Your task to perform on an android device: toggle translation in the chrome app Image 0: 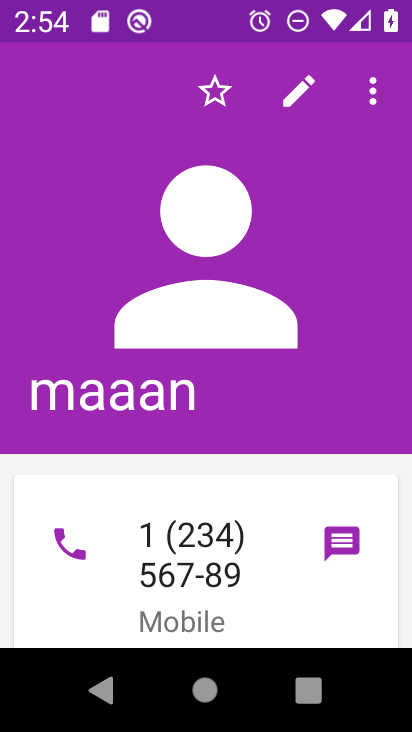
Step 0: press home button
Your task to perform on an android device: toggle translation in the chrome app Image 1: 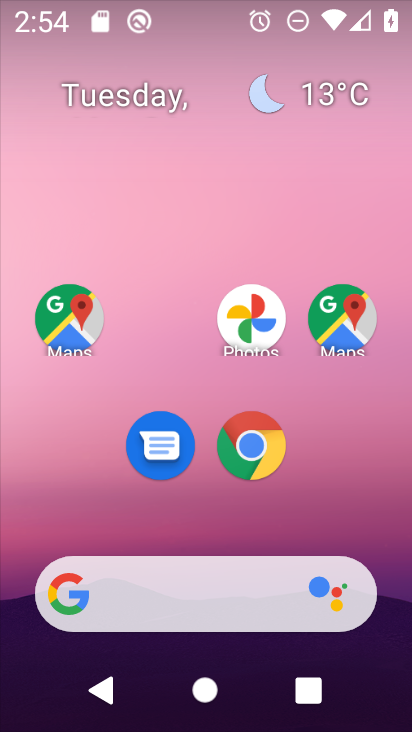
Step 1: drag from (391, 468) to (381, 153)
Your task to perform on an android device: toggle translation in the chrome app Image 2: 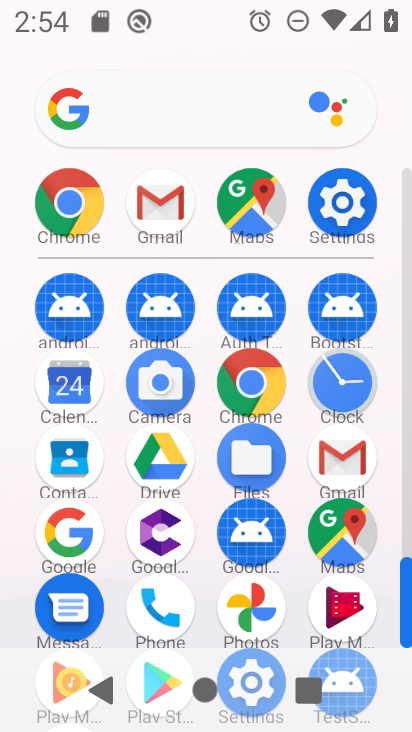
Step 2: click (267, 400)
Your task to perform on an android device: toggle translation in the chrome app Image 3: 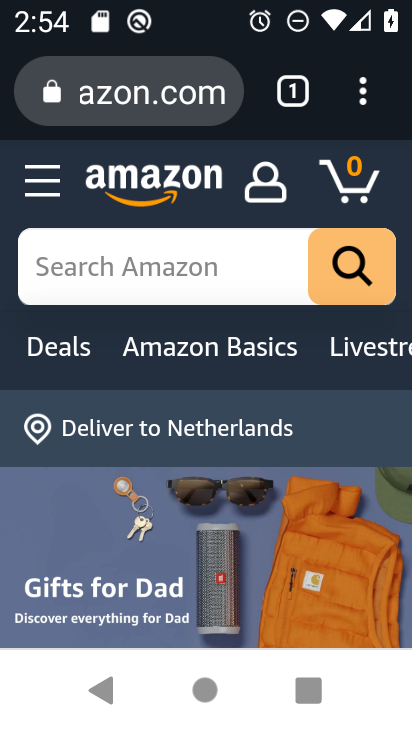
Step 3: click (362, 107)
Your task to perform on an android device: toggle translation in the chrome app Image 4: 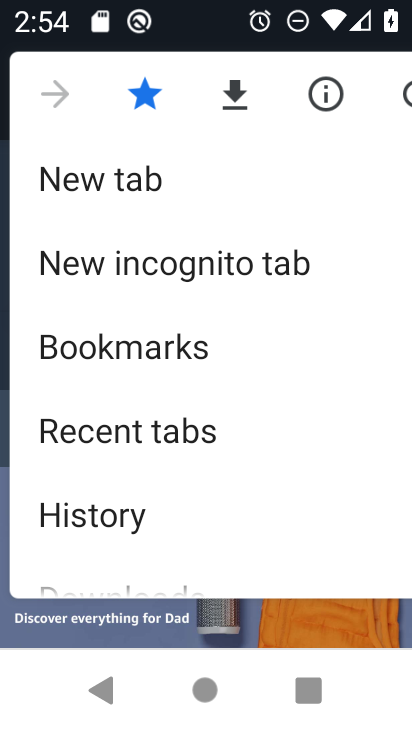
Step 4: drag from (320, 521) to (321, 318)
Your task to perform on an android device: toggle translation in the chrome app Image 5: 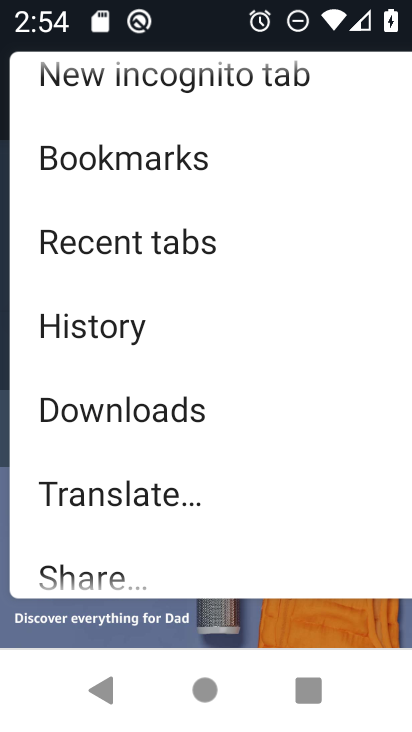
Step 5: drag from (289, 482) to (294, 364)
Your task to perform on an android device: toggle translation in the chrome app Image 6: 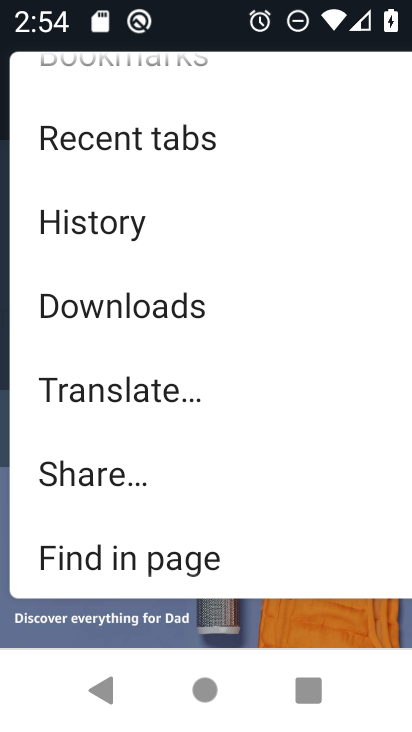
Step 6: drag from (311, 523) to (318, 413)
Your task to perform on an android device: toggle translation in the chrome app Image 7: 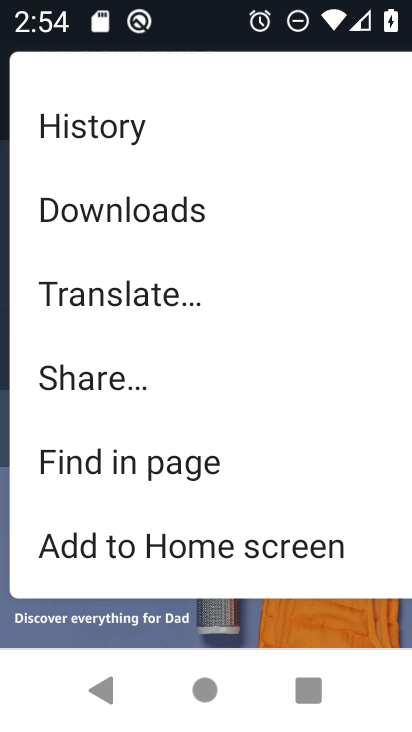
Step 7: drag from (311, 507) to (306, 390)
Your task to perform on an android device: toggle translation in the chrome app Image 8: 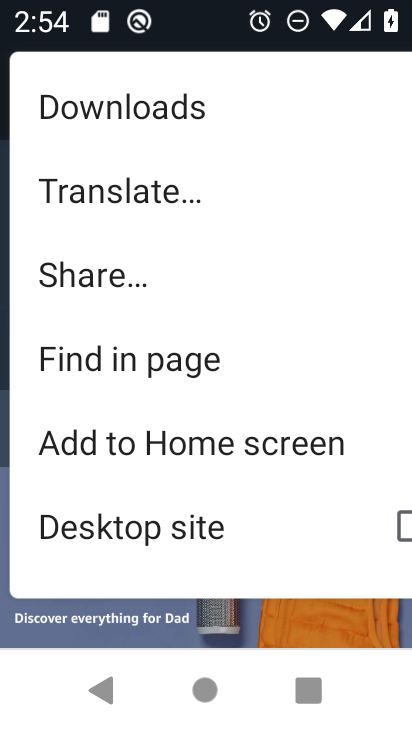
Step 8: drag from (284, 529) to (306, 402)
Your task to perform on an android device: toggle translation in the chrome app Image 9: 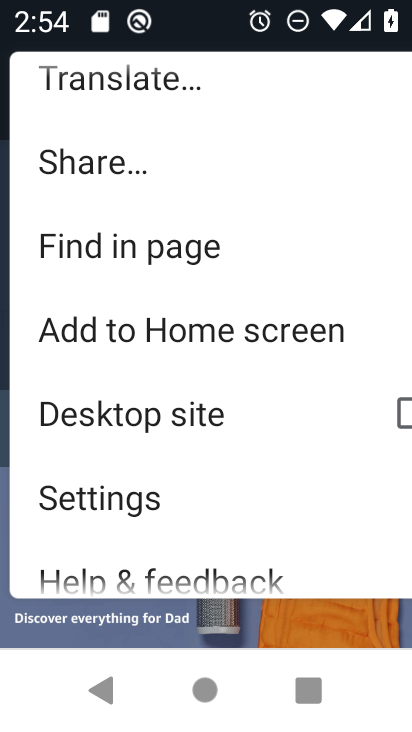
Step 9: drag from (294, 546) to (303, 446)
Your task to perform on an android device: toggle translation in the chrome app Image 10: 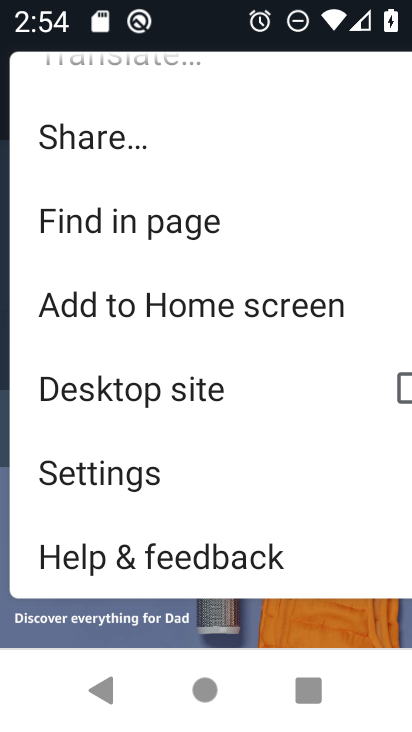
Step 10: click (153, 478)
Your task to perform on an android device: toggle translation in the chrome app Image 11: 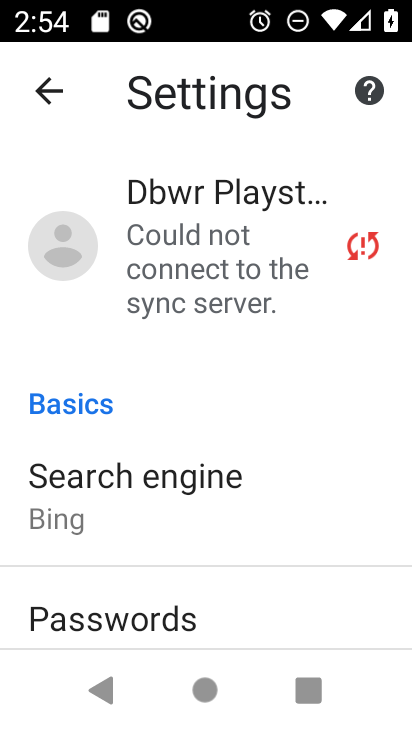
Step 11: drag from (321, 578) to (336, 463)
Your task to perform on an android device: toggle translation in the chrome app Image 12: 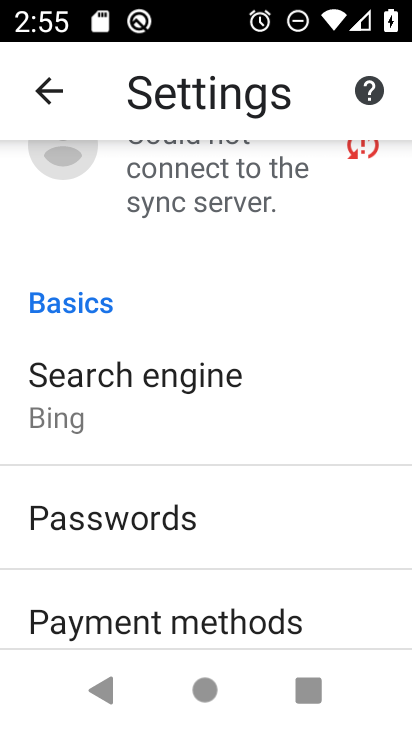
Step 12: drag from (370, 613) to (361, 470)
Your task to perform on an android device: toggle translation in the chrome app Image 13: 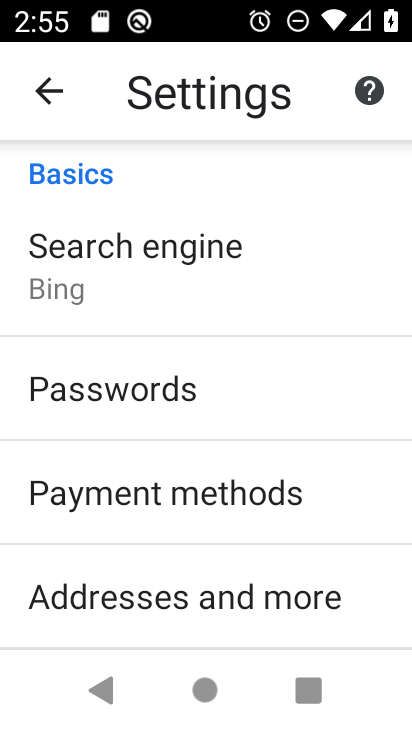
Step 13: drag from (345, 610) to (346, 488)
Your task to perform on an android device: toggle translation in the chrome app Image 14: 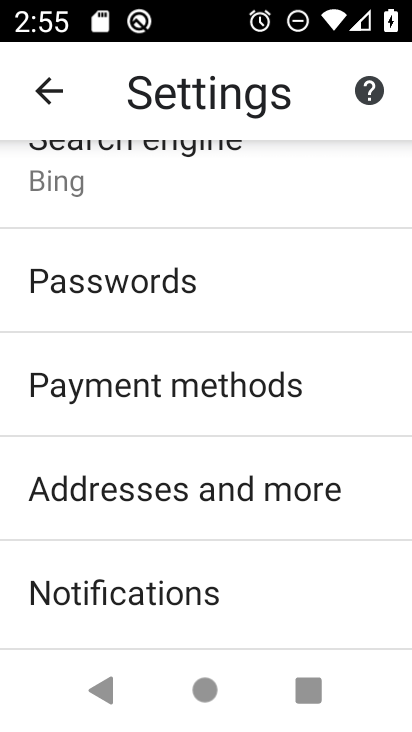
Step 14: drag from (344, 583) to (348, 516)
Your task to perform on an android device: toggle translation in the chrome app Image 15: 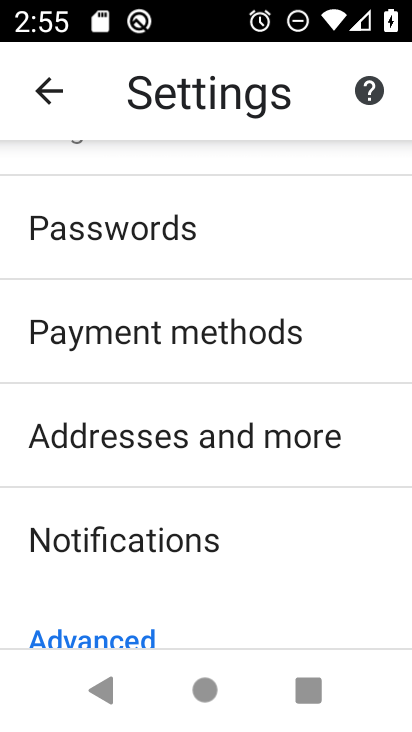
Step 15: drag from (339, 599) to (342, 506)
Your task to perform on an android device: toggle translation in the chrome app Image 16: 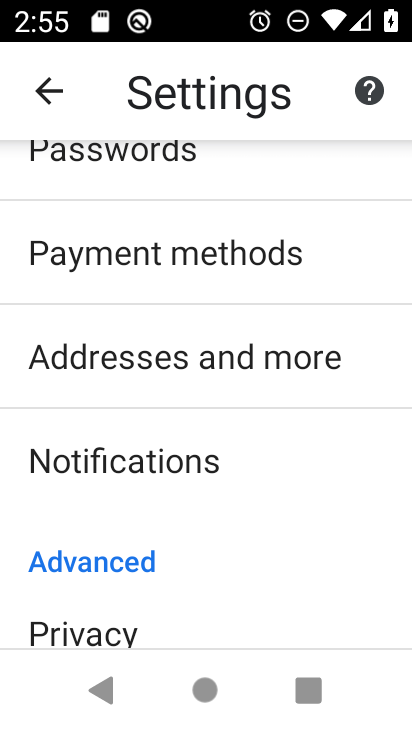
Step 16: drag from (348, 594) to (344, 479)
Your task to perform on an android device: toggle translation in the chrome app Image 17: 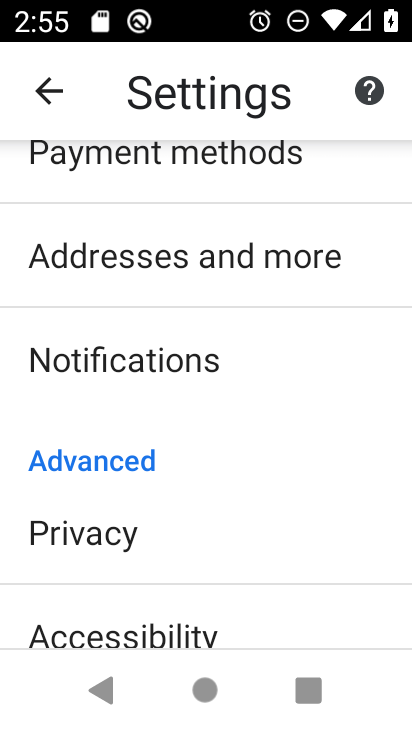
Step 17: drag from (334, 600) to (333, 481)
Your task to perform on an android device: toggle translation in the chrome app Image 18: 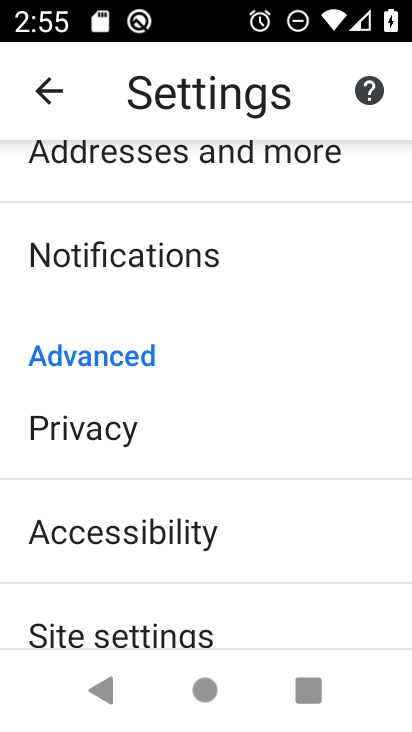
Step 18: drag from (322, 613) to (337, 501)
Your task to perform on an android device: toggle translation in the chrome app Image 19: 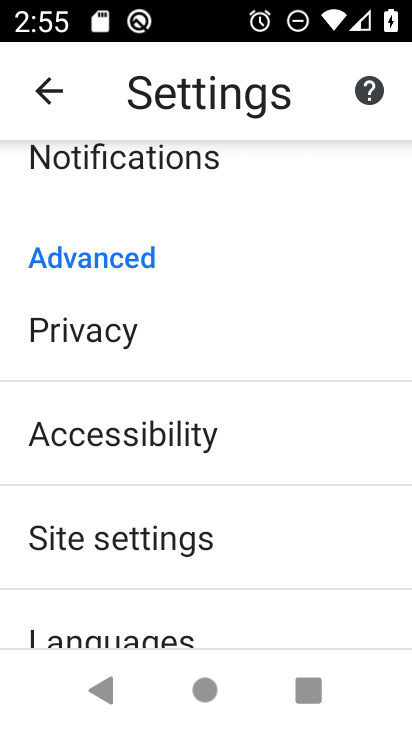
Step 19: drag from (310, 575) to (319, 465)
Your task to perform on an android device: toggle translation in the chrome app Image 20: 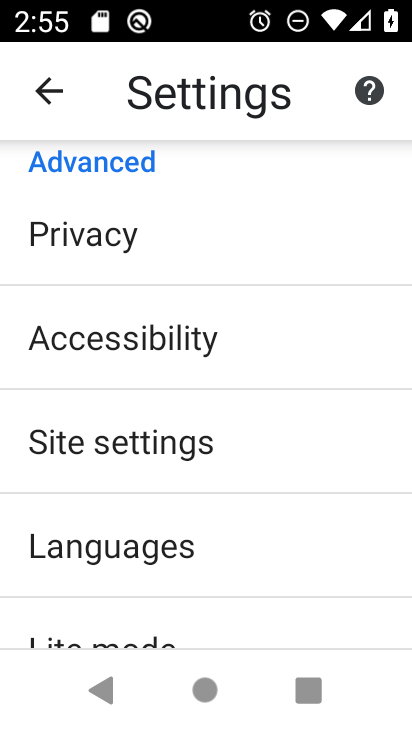
Step 20: click (236, 550)
Your task to perform on an android device: toggle translation in the chrome app Image 21: 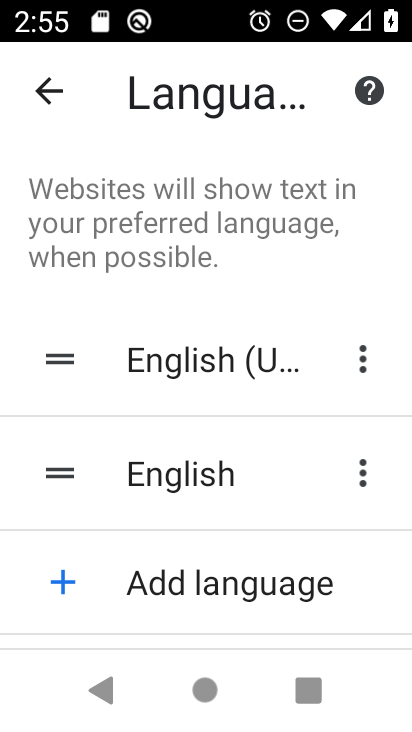
Step 21: drag from (275, 556) to (292, 468)
Your task to perform on an android device: toggle translation in the chrome app Image 22: 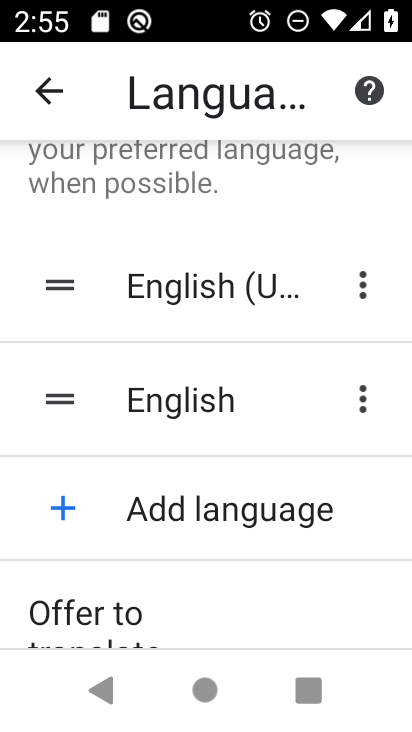
Step 22: drag from (306, 587) to (320, 460)
Your task to perform on an android device: toggle translation in the chrome app Image 23: 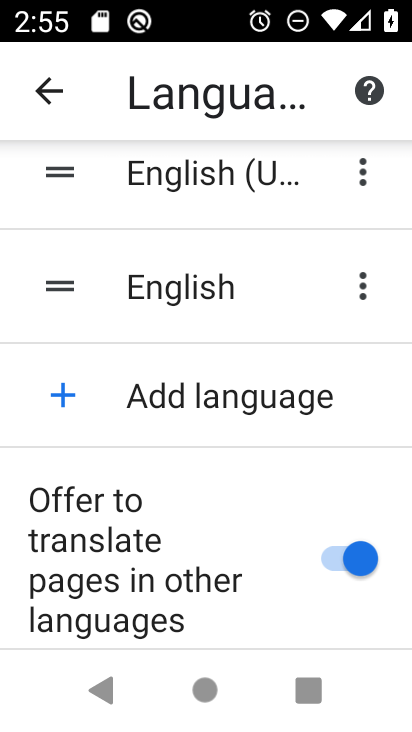
Step 23: click (352, 560)
Your task to perform on an android device: toggle translation in the chrome app Image 24: 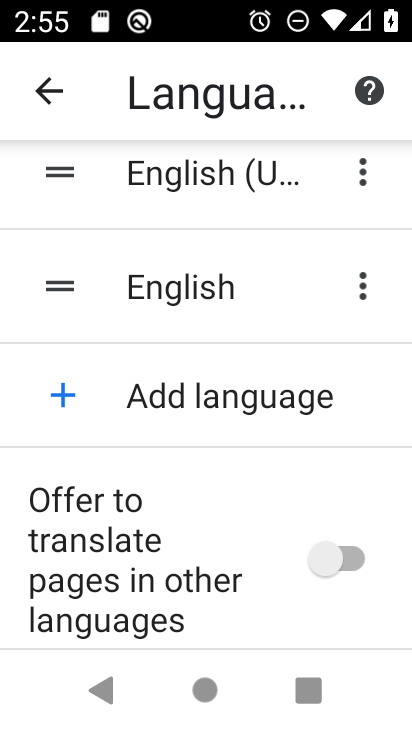
Step 24: task complete